Your task to perform on an android device: toggle notifications settings in the gmail app Image 0: 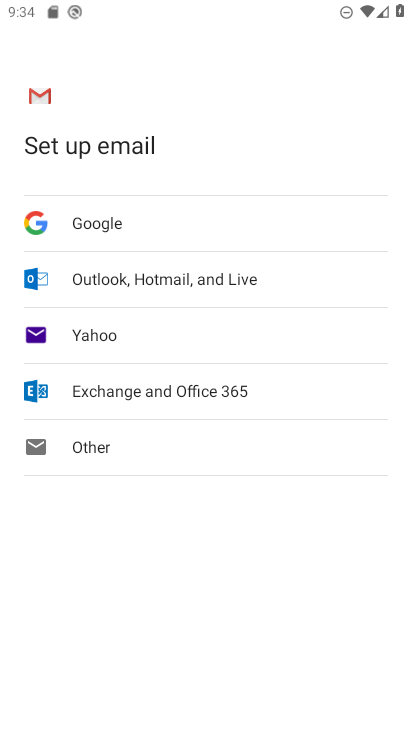
Step 0: press home button
Your task to perform on an android device: toggle notifications settings in the gmail app Image 1: 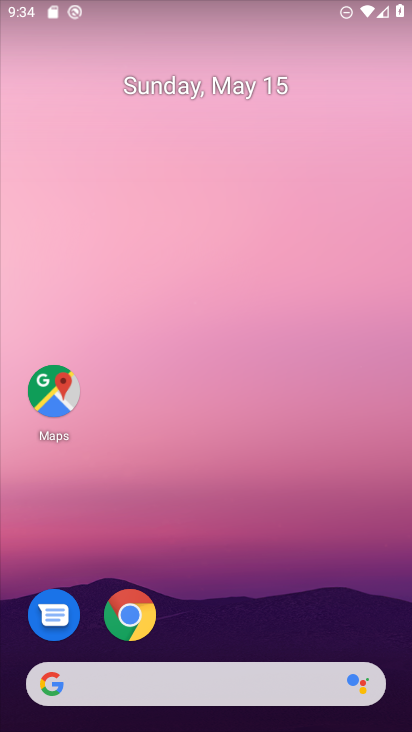
Step 1: drag from (179, 655) to (350, 111)
Your task to perform on an android device: toggle notifications settings in the gmail app Image 2: 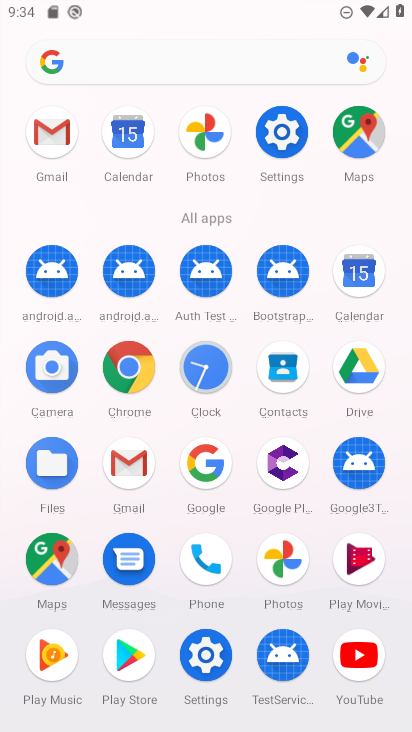
Step 2: click (128, 464)
Your task to perform on an android device: toggle notifications settings in the gmail app Image 3: 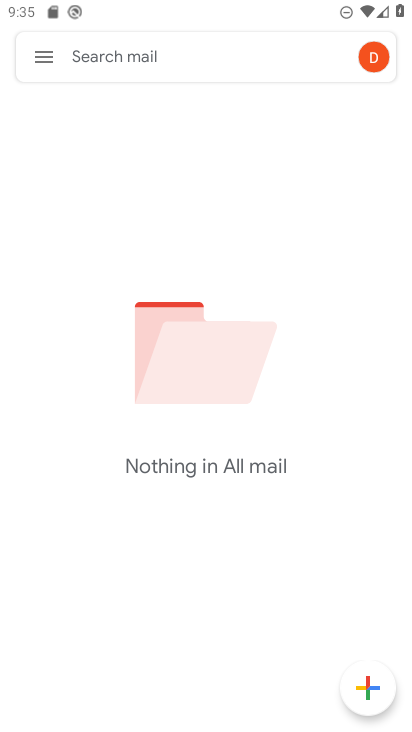
Step 3: click (45, 63)
Your task to perform on an android device: toggle notifications settings in the gmail app Image 4: 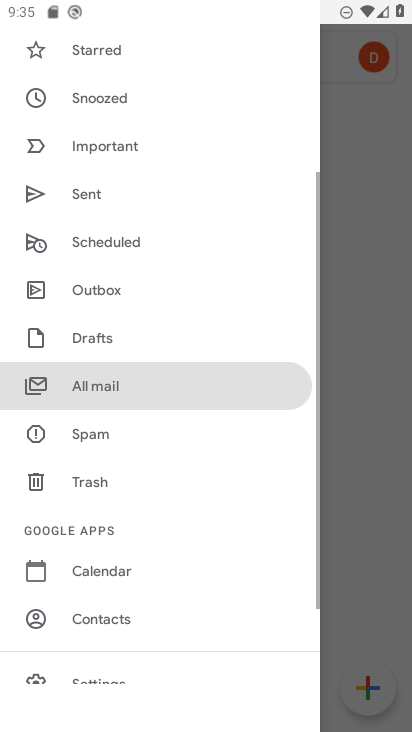
Step 4: drag from (161, 588) to (230, 353)
Your task to perform on an android device: toggle notifications settings in the gmail app Image 5: 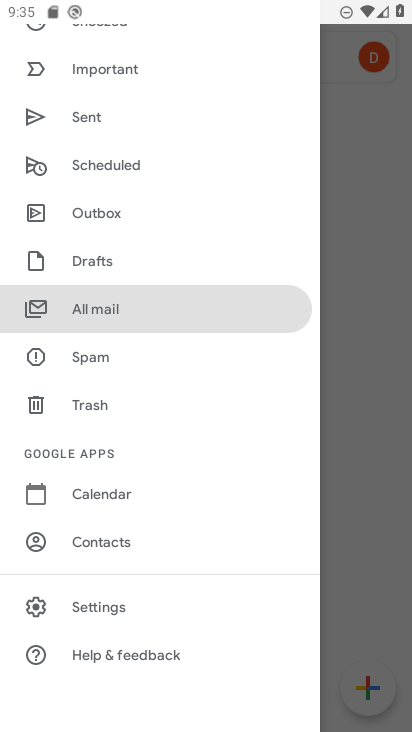
Step 5: click (129, 614)
Your task to perform on an android device: toggle notifications settings in the gmail app Image 6: 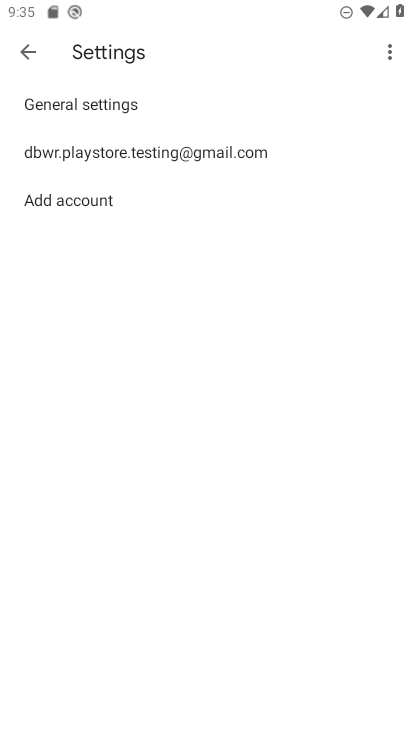
Step 6: click (278, 159)
Your task to perform on an android device: toggle notifications settings in the gmail app Image 7: 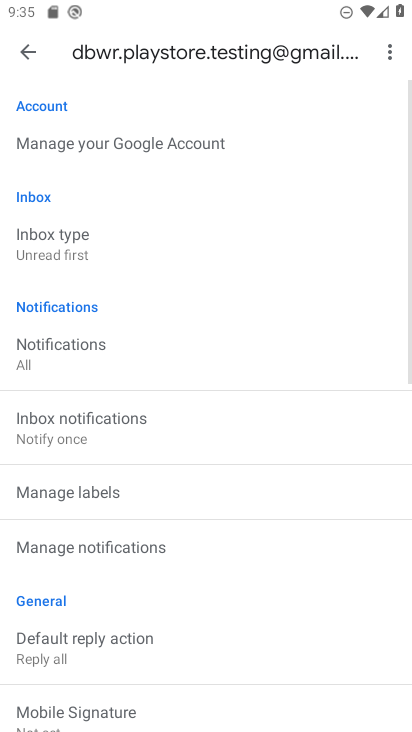
Step 7: click (177, 547)
Your task to perform on an android device: toggle notifications settings in the gmail app Image 8: 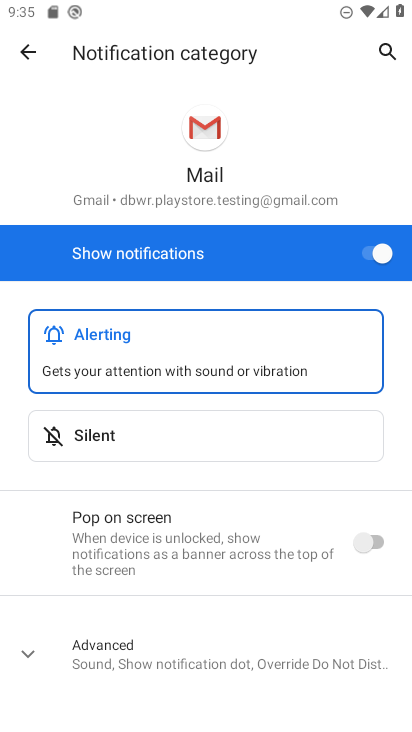
Step 8: click (343, 248)
Your task to perform on an android device: toggle notifications settings in the gmail app Image 9: 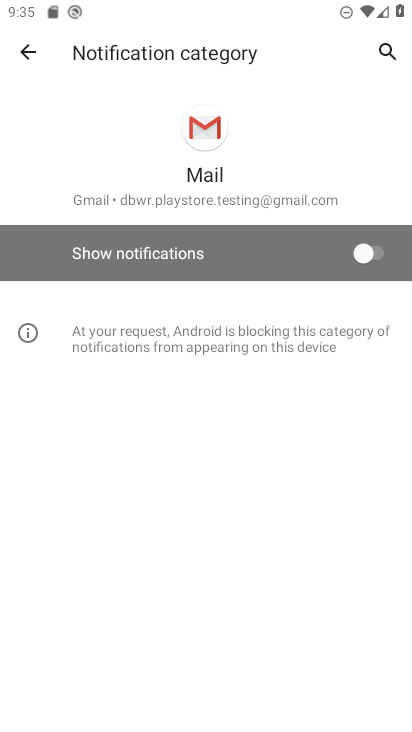
Step 9: task complete